Your task to perform on an android device: snooze an email in the gmail app Image 0: 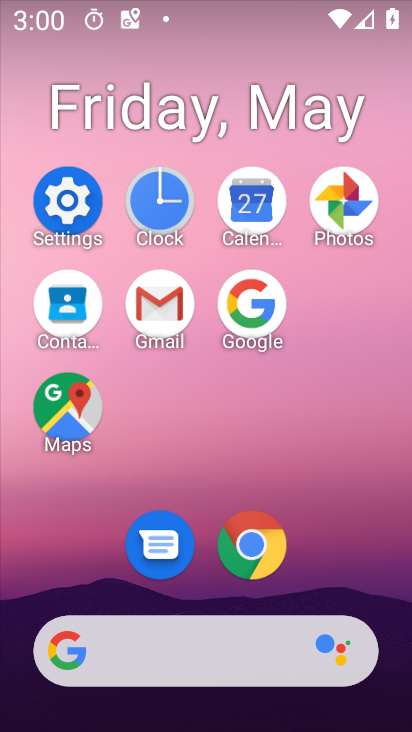
Step 0: click (175, 321)
Your task to perform on an android device: snooze an email in the gmail app Image 1: 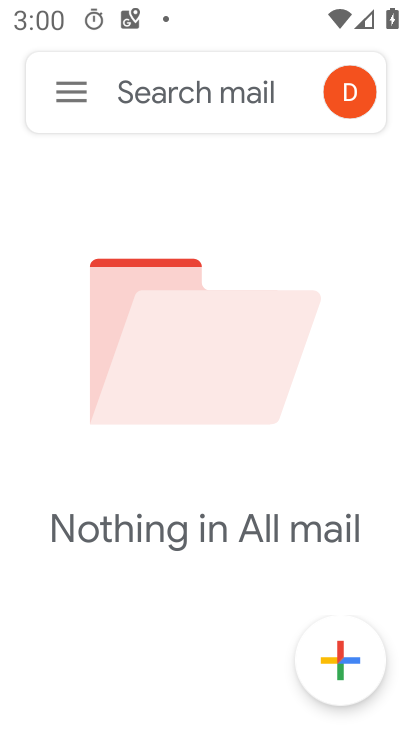
Step 1: click (62, 103)
Your task to perform on an android device: snooze an email in the gmail app Image 2: 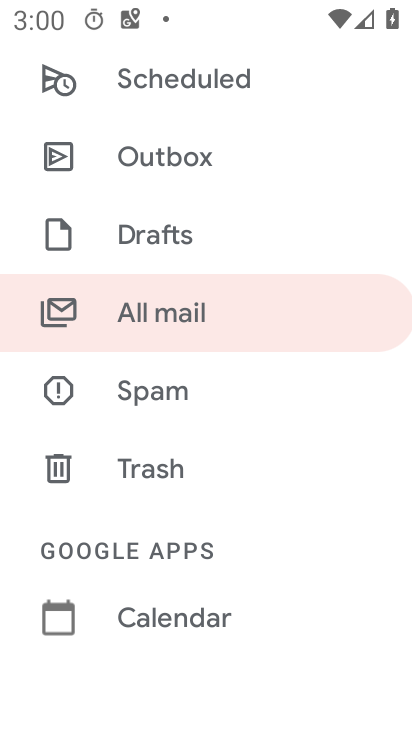
Step 2: click (201, 314)
Your task to perform on an android device: snooze an email in the gmail app Image 3: 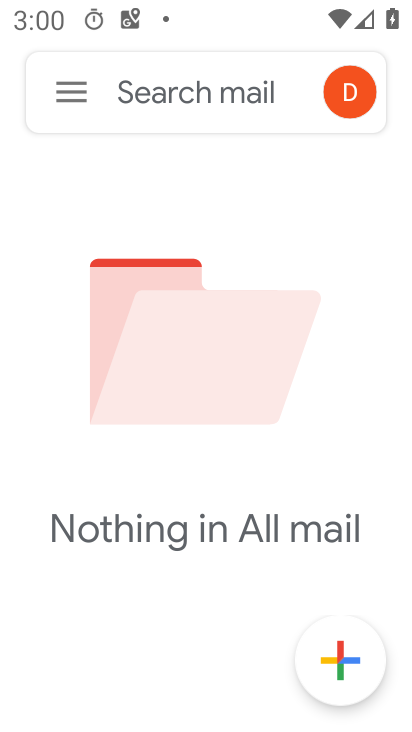
Step 3: task complete